Your task to perform on an android device: open chrome and create a bookmark for the current page Image 0: 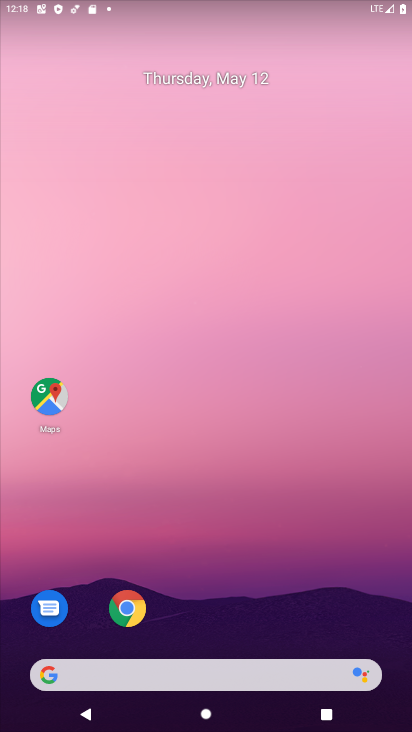
Step 0: click (130, 620)
Your task to perform on an android device: open chrome and create a bookmark for the current page Image 1: 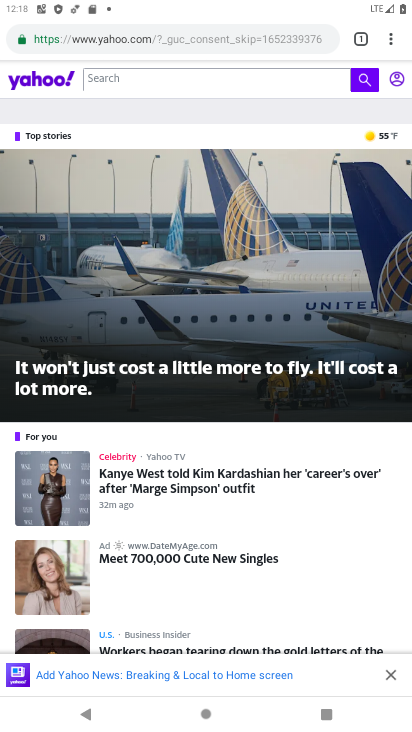
Step 1: click (390, 41)
Your task to perform on an android device: open chrome and create a bookmark for the current page Image 2: 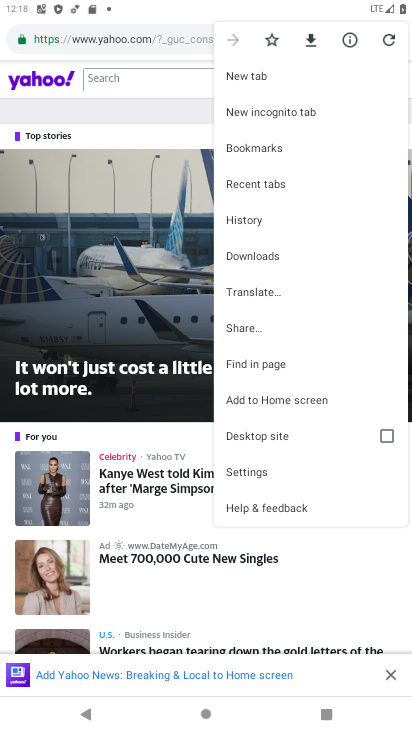
Step 2: click (271, 35)
Your task to perform on an android device: open chrome and create a bookmark for the current page Image 3: 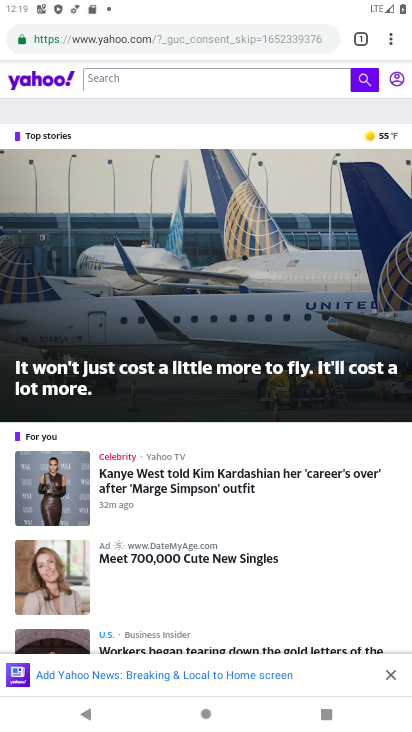
Step 3: task complete